Your task to perform on an android device: Open my contact list Image 0: 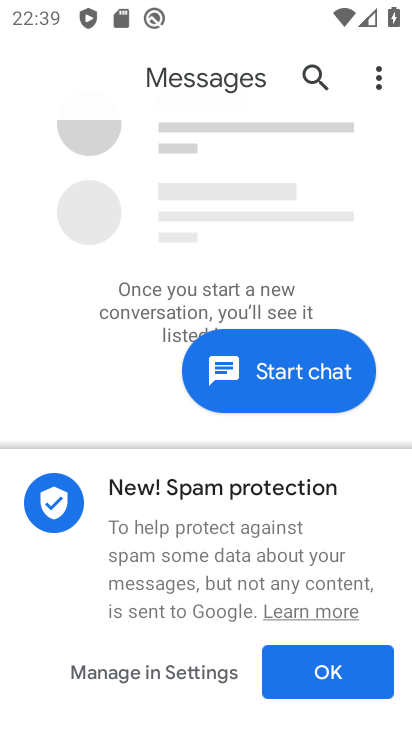
Step 0: press home button
Your task to perform on an android device: Open my contact list Image 1: 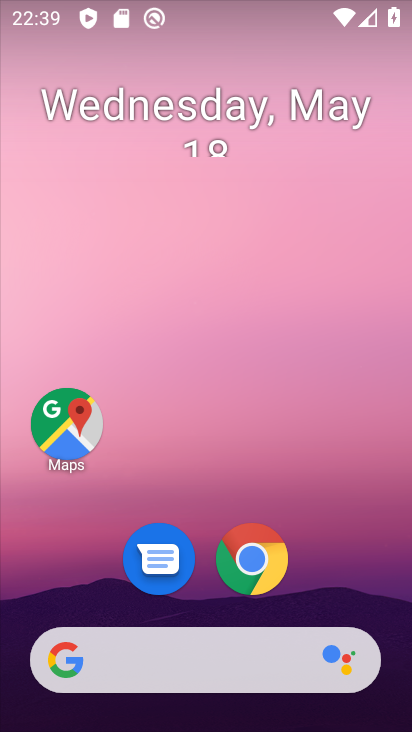
Step 1: drag from (346, 569) to (184, 101)
Your task to perform on an android device: Open my contact list Image 2: 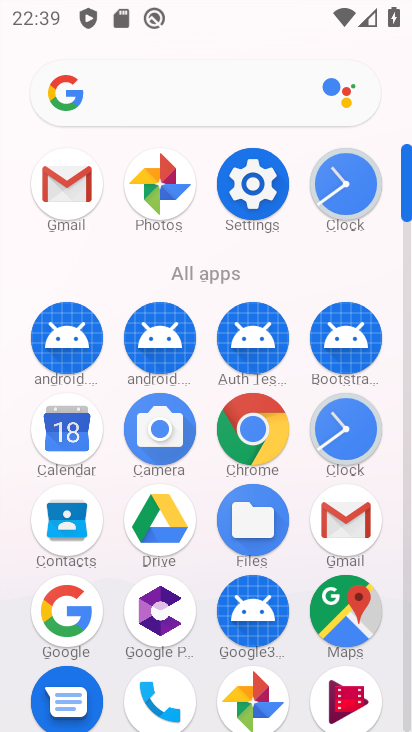
Step 2: click (61, 524)
Your task to perform on an android device: Open my contact list Image 3: 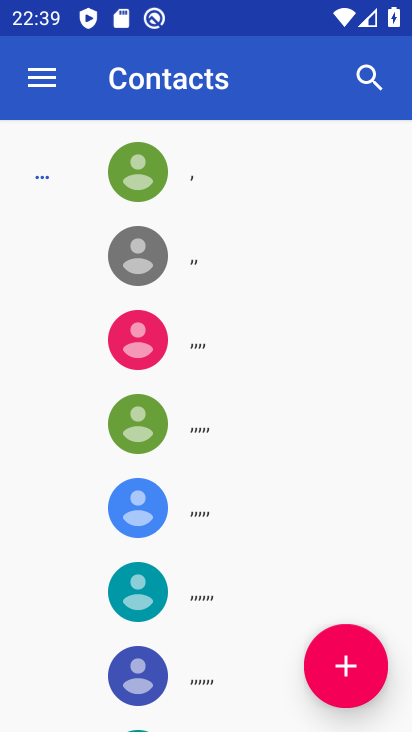
Step 3: task complete